Your task to perform on an android device: Open network settings Image 0: 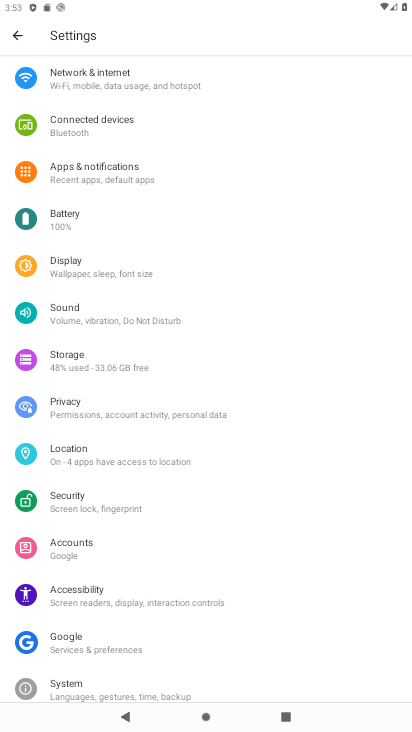
Step 0: click (126, 88)
Your task to perform on an android device: Open network settings Image 1: 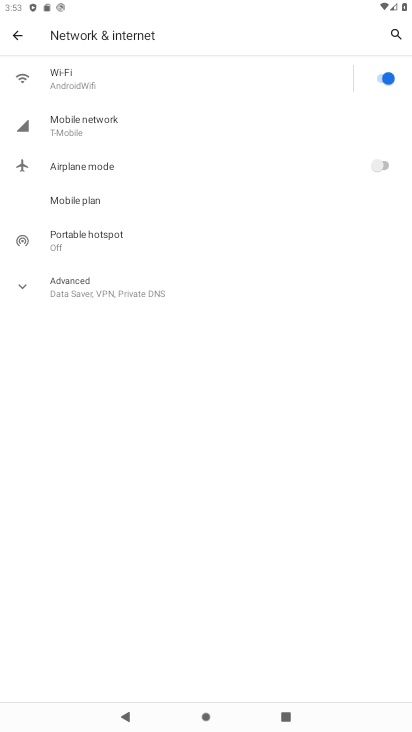
Step 1: task complete